Your task to perform on an android device: Open Yahoo.com Image 0: 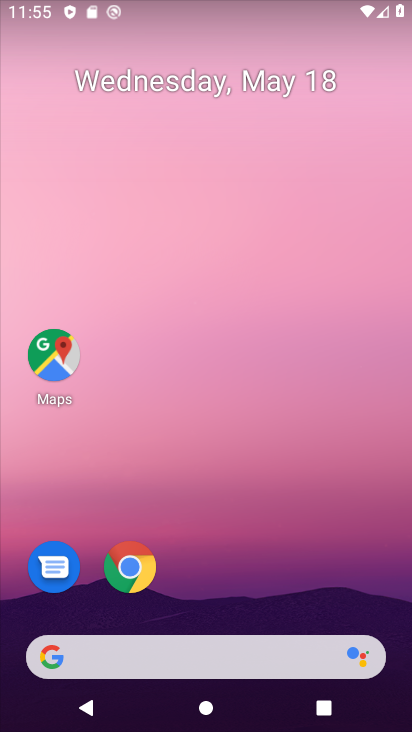
Step 0: click (128, 564)
Your task to perform on an android device: Open Yahoo.com Image 1: 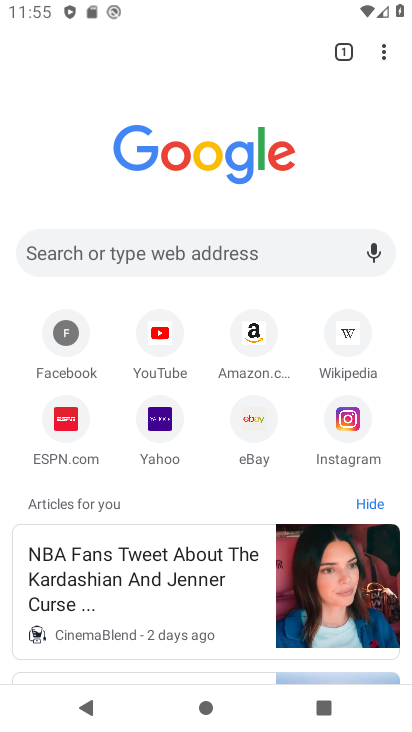
Step 1: click (393, 54)
Your task to perform on an android device: Open Yahoo.com Image 2: 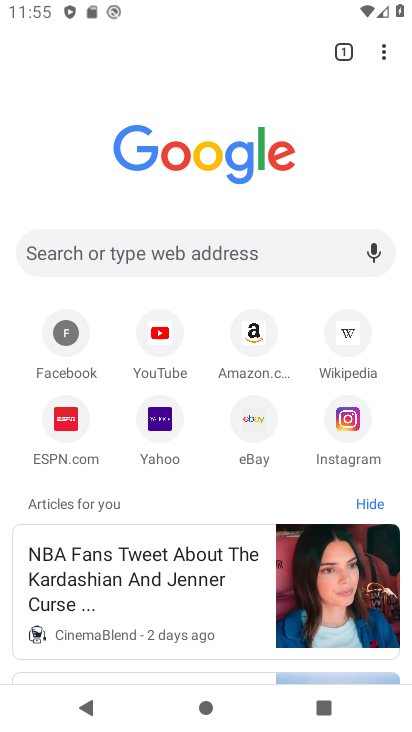
Step 2: click (157, 416)
Your task to perform on an android device: Open Yahoo.com Image 3: 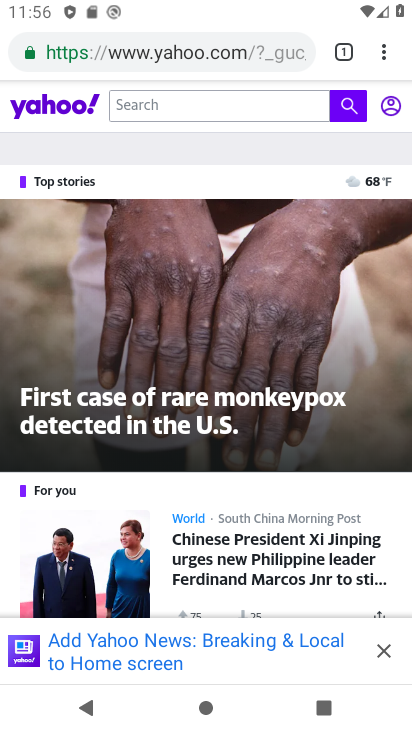
Step 3: task complete